Your task to perform on an android device: Check the news Image 0: 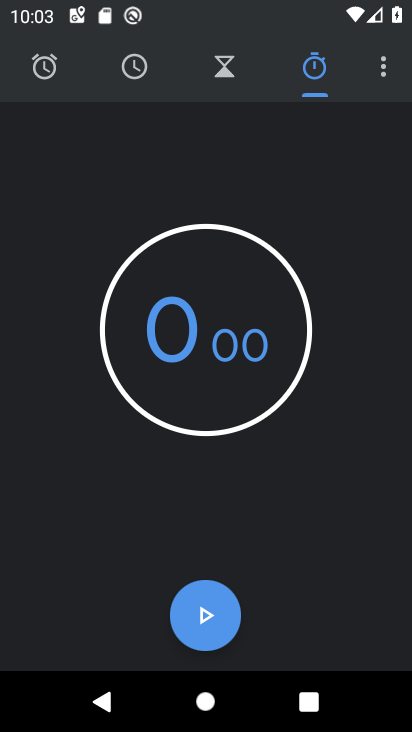
Step 0: press home button
Your task to perform on an android device: Check the news Image 1: 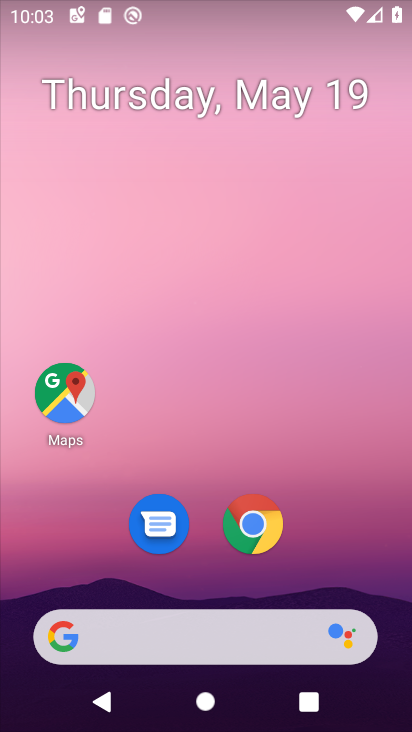
Step 1: click (227, 653)
Your task to perform on an android device: Check the news Image 2: 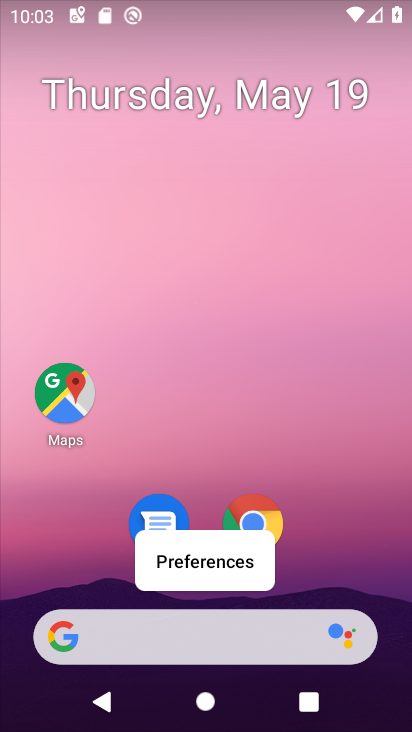
Step 2: click (227, 648)
Your task to perform on an android device: Check the news Image 3: 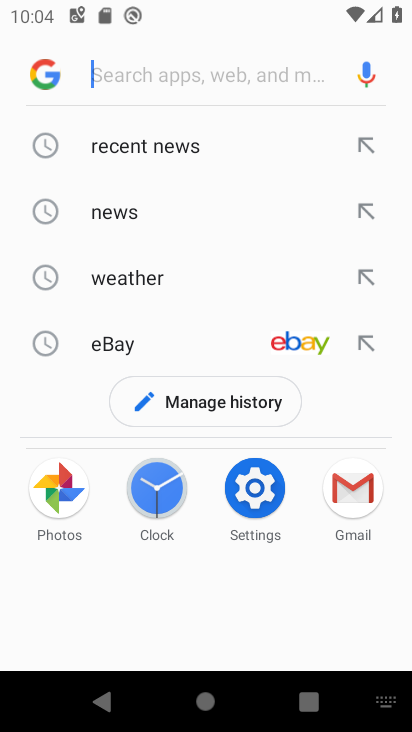
Step 3: click (114, 209)
Your task to perform on an android device: Check the news Image 4: 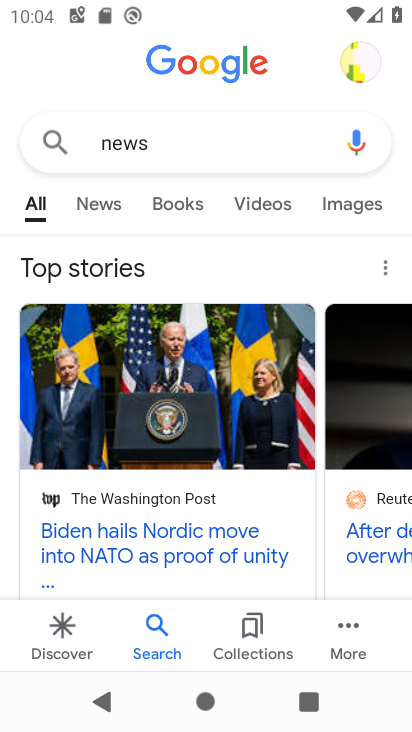
Step 4: click (114, 209)
Your task to perform on an android device: Check the news Image 5: 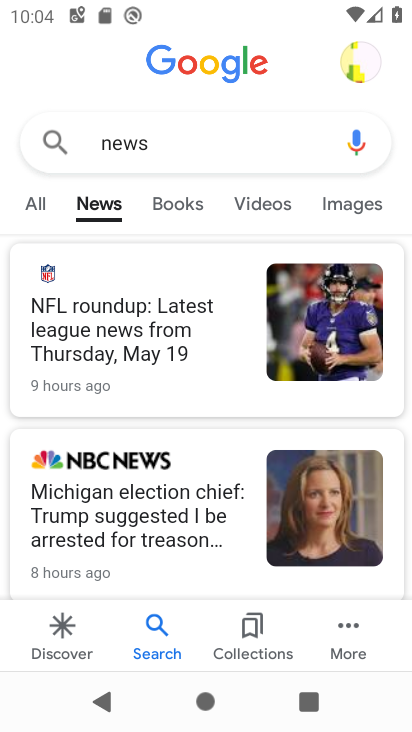
Step 5: task complete